Your task to perform on an android device: find which apps use the phone's location Image 0: 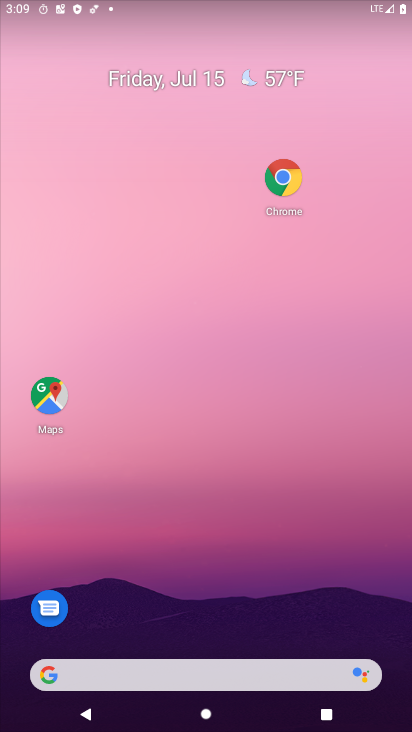
Step 0: drag from (271, 591) to (298, 59)
Your task to perform on an android device: find which apps use the phone's location Image 1: 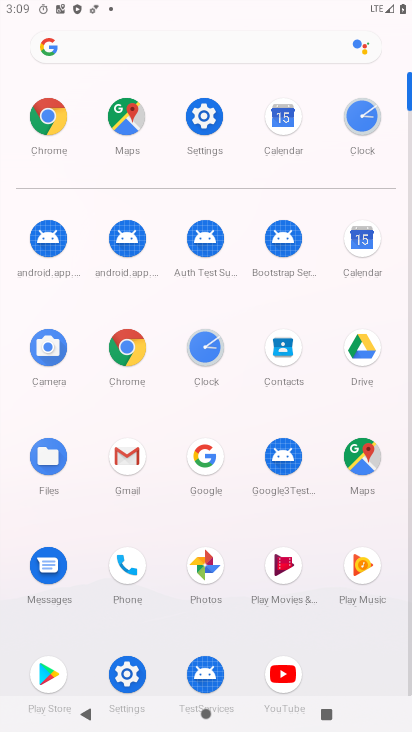
Step 1: click (129, 580)
Your task to perform on an android device: find which apps use the phone's location Image 2: 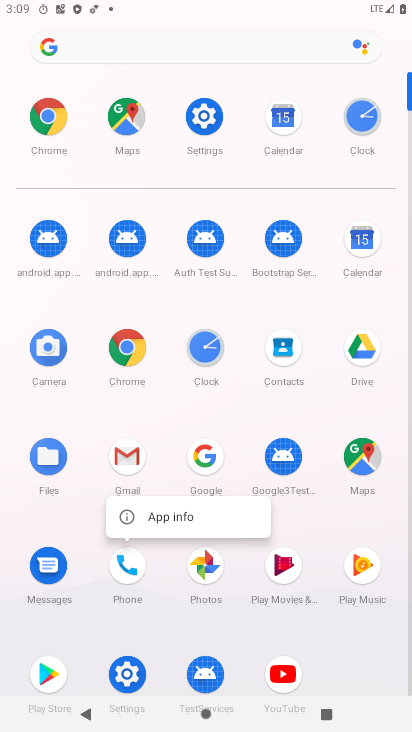
Step 2: click (152, 510)
Your task to perform on an android device: find which apps use the phone's location Image 3: 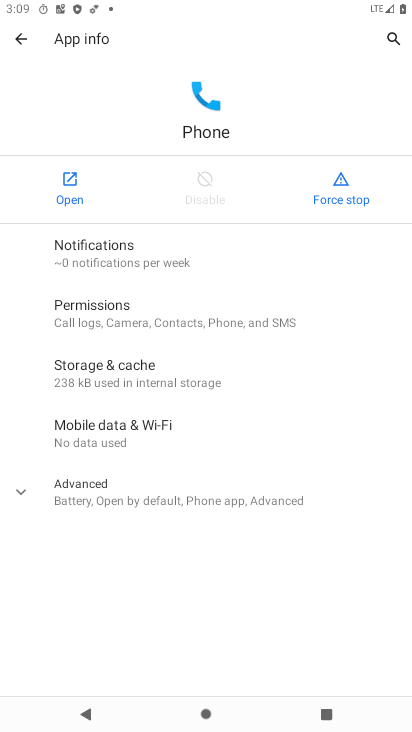
Step 3: click (102, 485)
Your task to perform on an android device: find which apps use the phone's location Image 4: 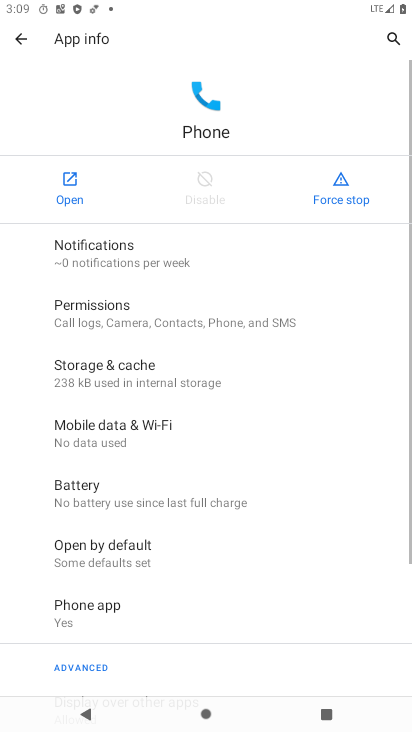
Step 4: click (120, 317)
Your task to perform on an android device: find which apps use the phone's location Image 5: 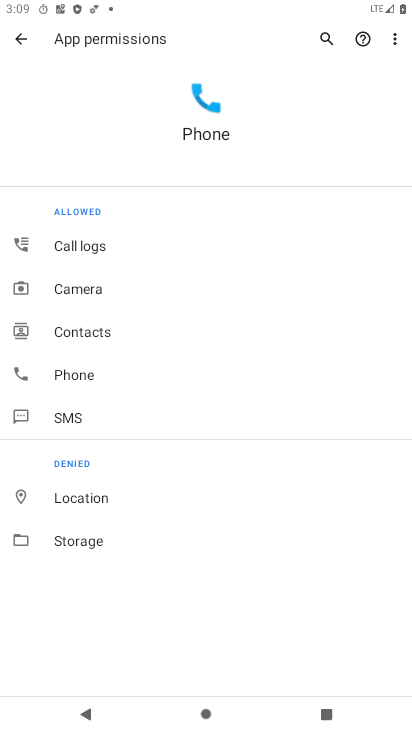
Step 5: click (108, 493)
Your task to perform on an android device: find which apps use the phone's location Image 6: 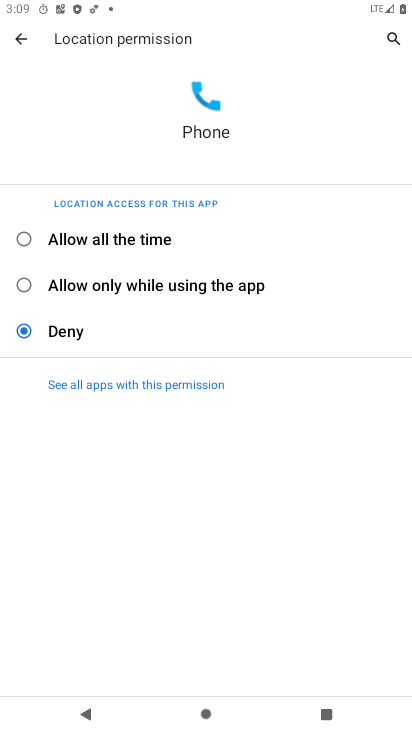
Step 6: click (65, 380)
Your task to perform on an android device: find which apps use the phone's location Image 7: 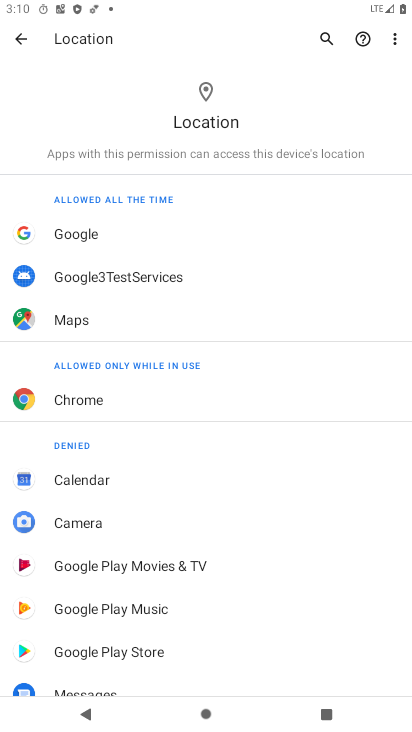
Step 7: task complete